Your task to perform on an android device: manage bookmarks in the chrome app Image 0: 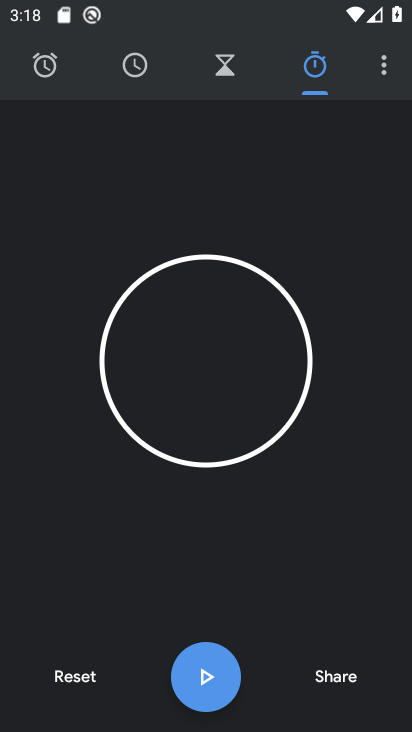
Step 0: press home button
Your task to perform on an android device: manage bookmarks in the chrome app Image 1: 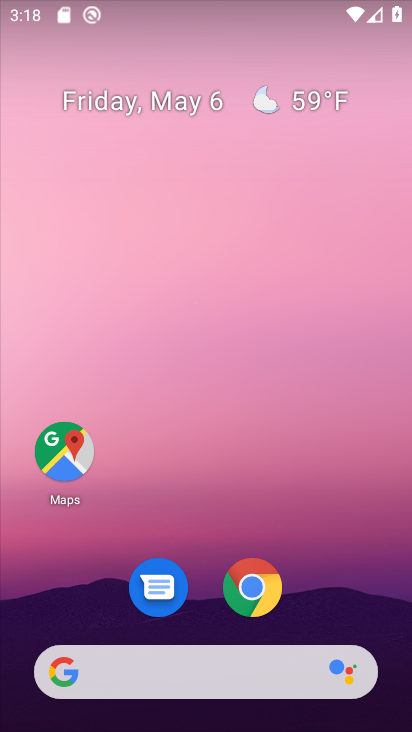
Step 1: drag from (238, 480) to (246, 0)
Your task to perform on an android device: manage bookmarks in the chrome app Image 2: 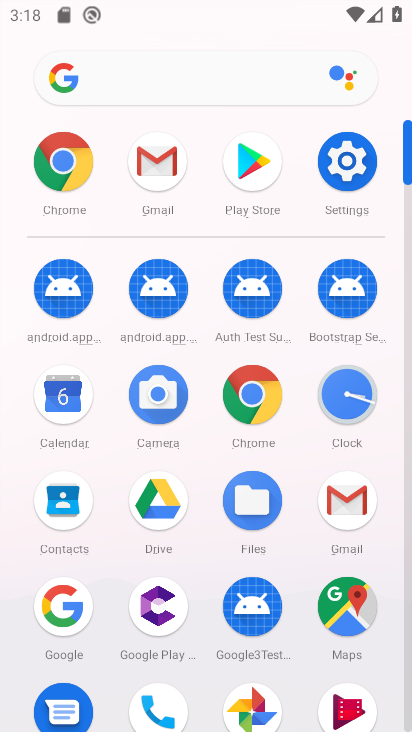
Step 2: click (77, 161)
Your task to perform on an android device: manage bookmarks in the chrome app Image 3: 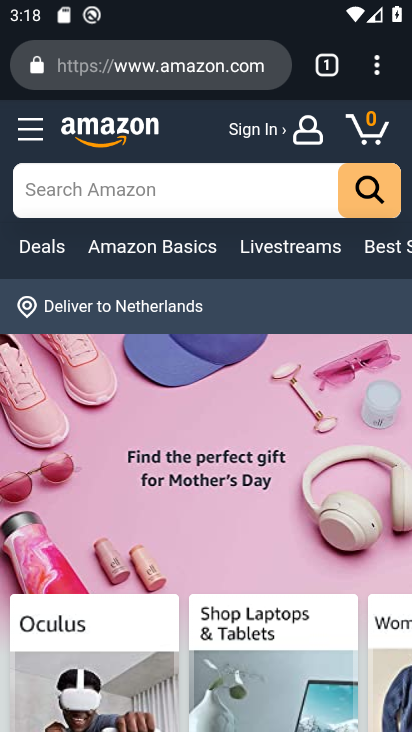
Step 3: task complete